Your task to perform on an android device: open chrome privacy settings Image 0: 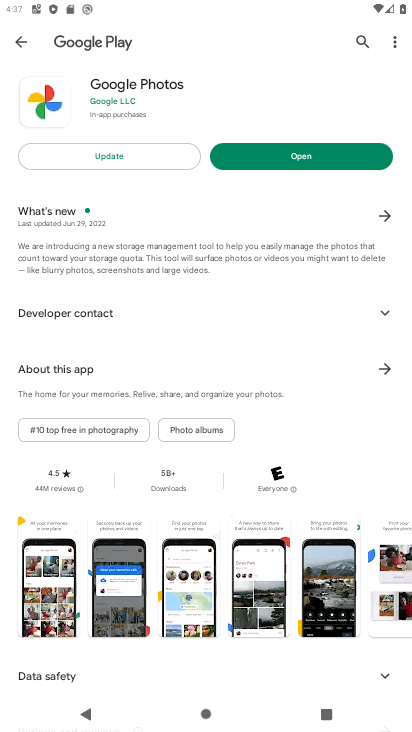
Step 0: press home button
Your task to perform on an android device: open chrome privacy settings Image 1: 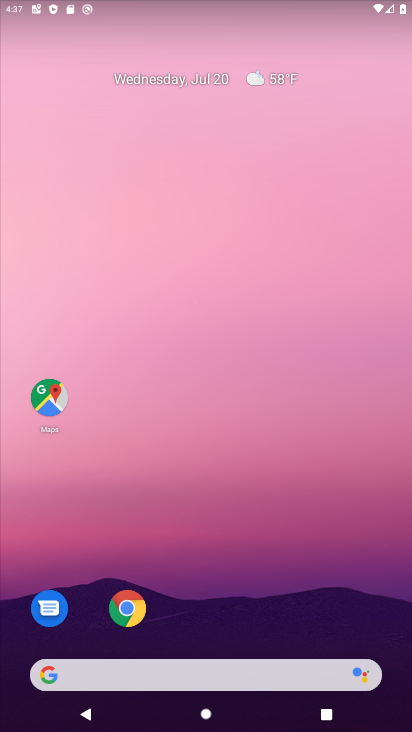
Step 1: drag from (222, 601) to (86, 45)
Your task to perform on an android device: open chrome privacy settings Image 2: 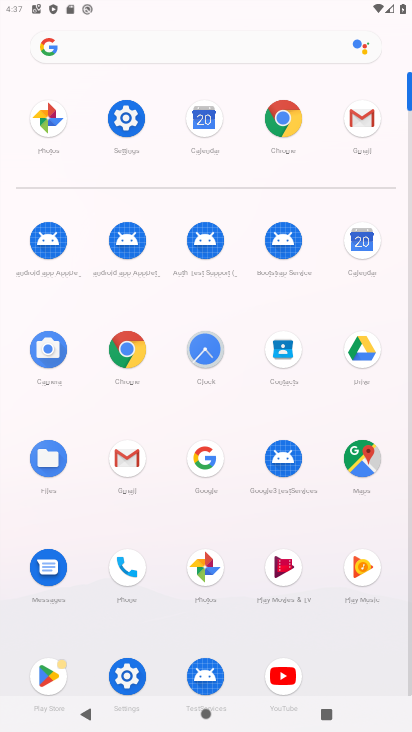
Step 2: click (129, 363)
Your task to perform on an android device: open chrome privacy settings Image 3: 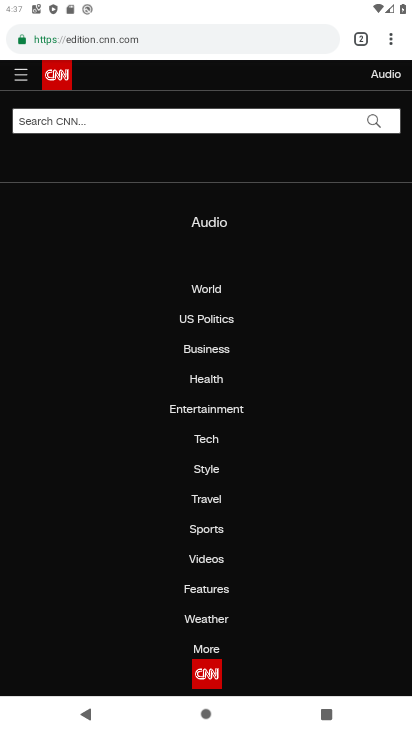
Step 3: click (386, 29)
Your task to perform on an android device: open chrome privacy settings Image 4: 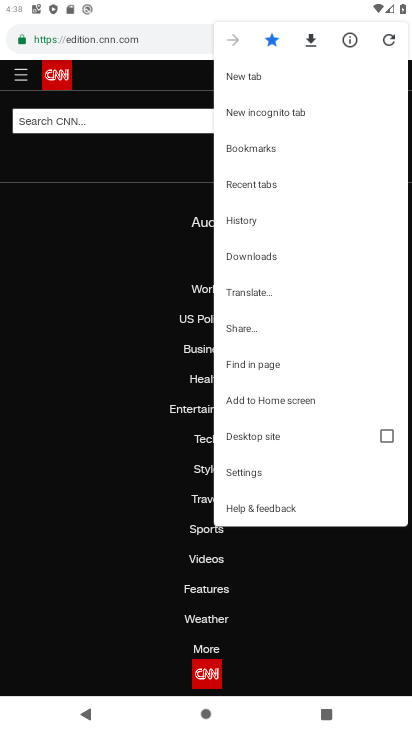
Step 4: click (248, 469)
Your task to perform on an android device: open chrome privacy settings Image 5: 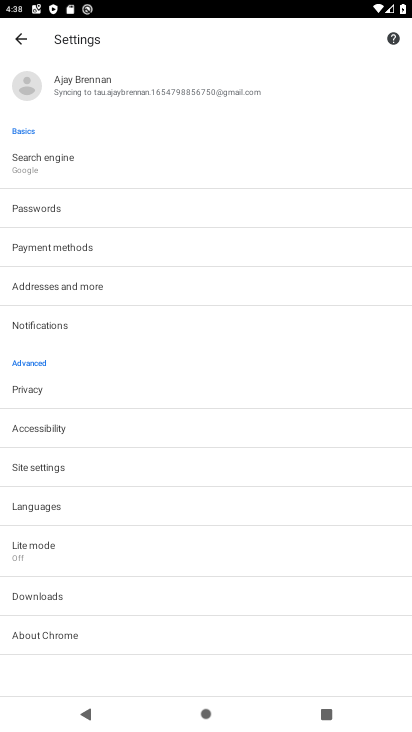
Step 5: click (109, 396)
Your task to perform on an android device: open chrome privacy settings Image 6: 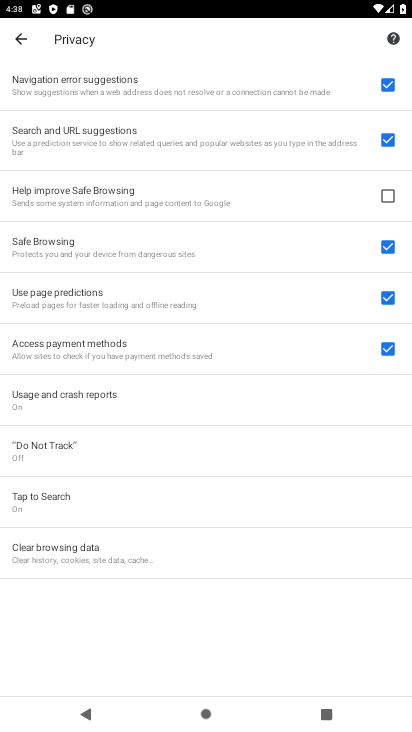
Step 6: task complete